Your task to perform on an android device: Open the Play Movies app and select the watchlist tab. Image 0: 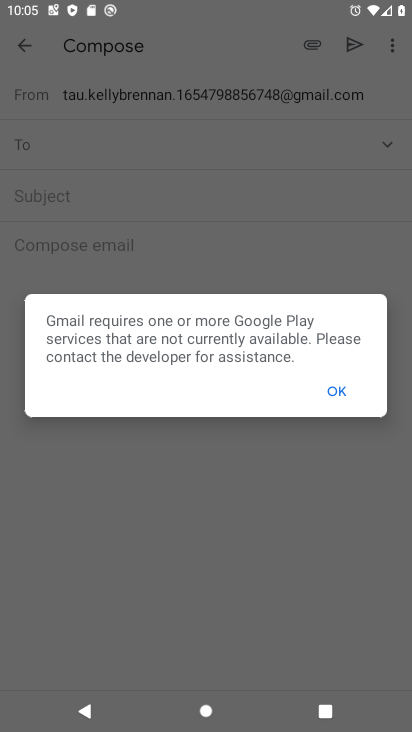
Step 0: press back button
Your task to perform on an android device: Open the Play Movies app and select the watchlist tab. Image 1: 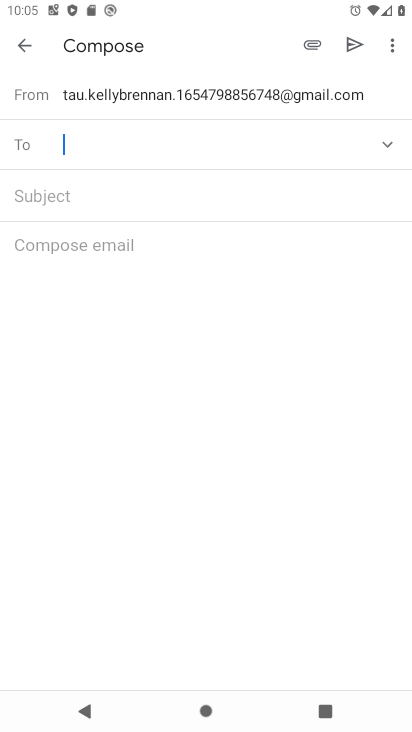
Step 1: press back button
Your task to perform on an android device: Open the Play Movies app and select the watchlist tab. Image 2: 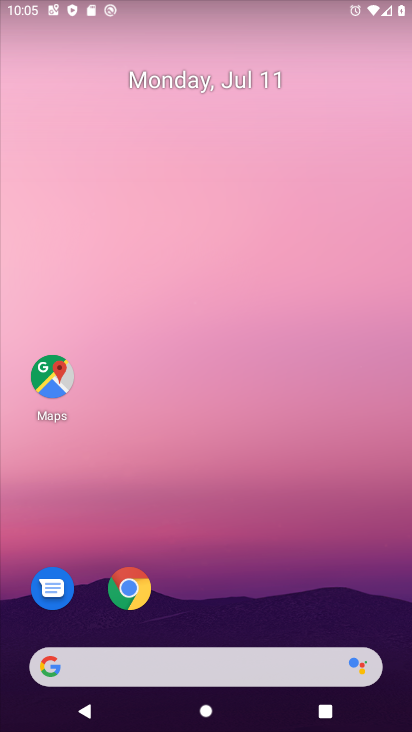
Step 2: drag from (219, 596) to (243, 29)
Your task to perform on an android device: Open the Play Movies app and select the watchlist tab. Image 3: 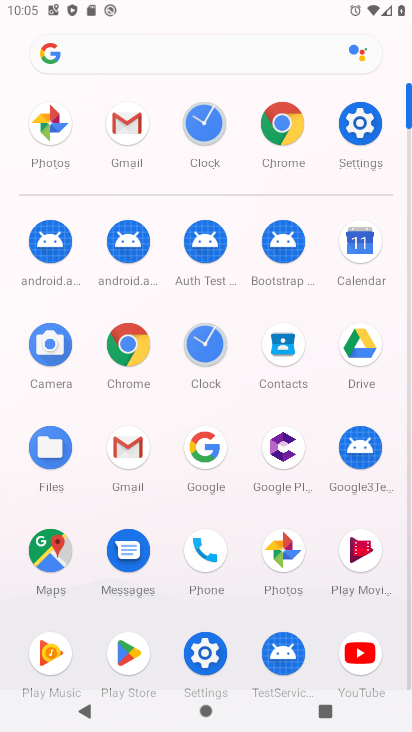
Step 3: click (348, 537)
Your task to perform on an android device: Open the Play Movies app and select the watchlist tab. Image 4: 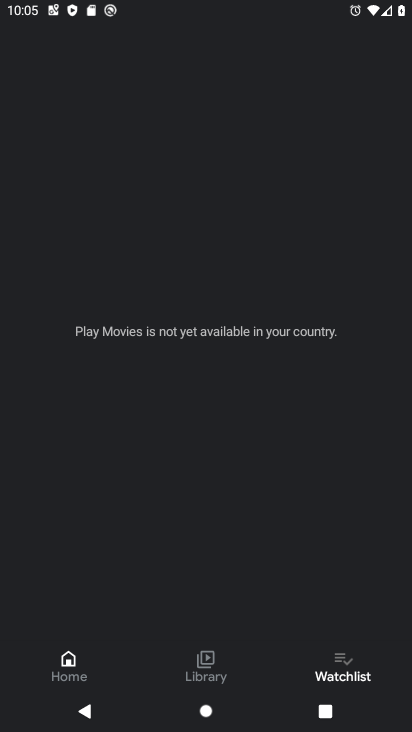
Step 4: click (350, 672)
Your task to perform on an android device: Open the Play Movies app and select the watchlist tab. Image 5: 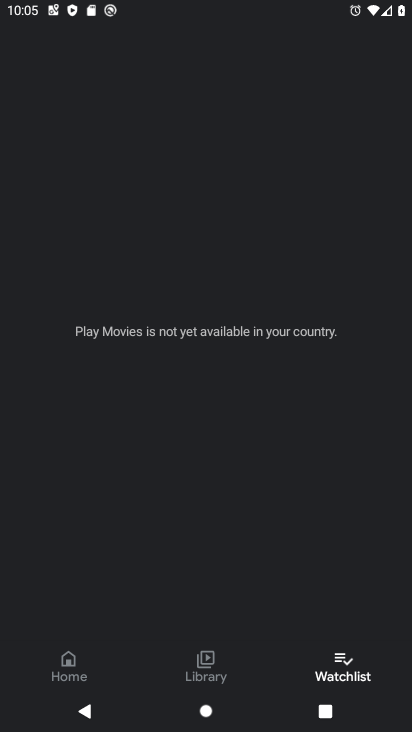
Step 5: task complete